Your task to perform on an android device: see creations saved in the google photos Image 0: 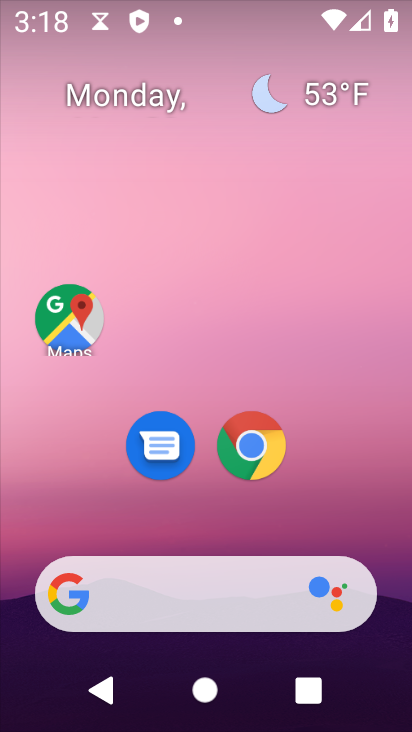
Step 0: drag from (184, 534) to (242, 4)
Your task to perform on an android device: see creations saved in the google photos Image 1: 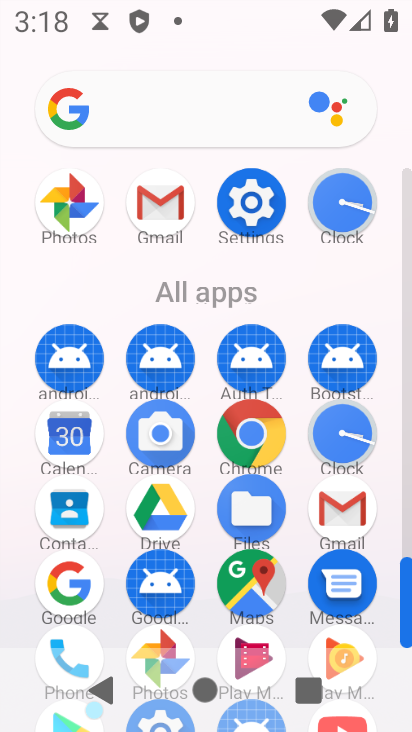
Step 1: drag from (207, 613) to (213, 396)
Your task to perform on an android device: see creations saved in the google photos Image 2: 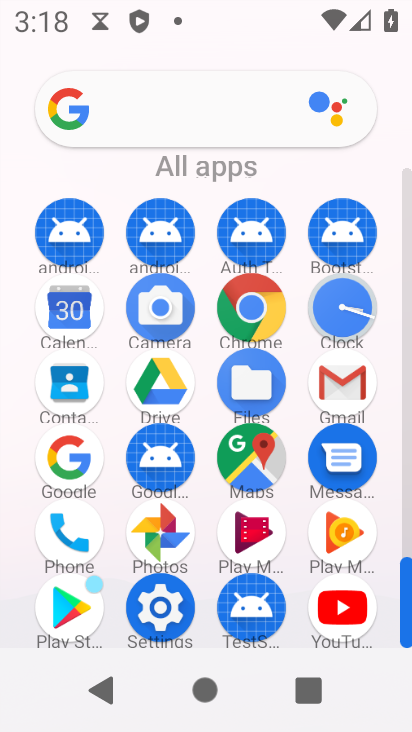
Step 2: click (168, 539)
Your task to perform on an android device: see creations saved in the google photos Image 3: 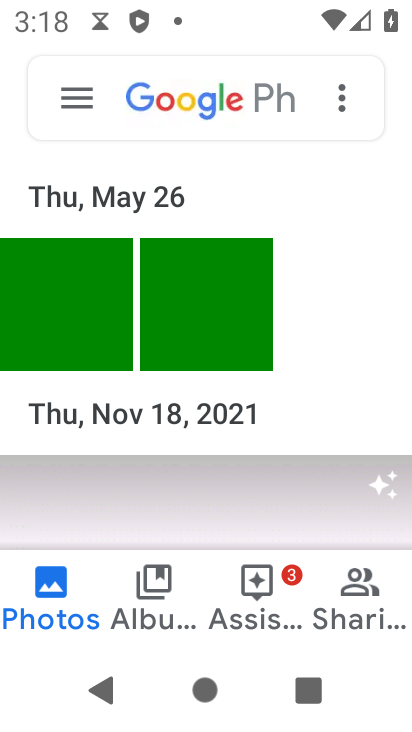
Step 3: drag from (176, 478) to (218, 136)
Your task to perform on an android device: see creations saved in the google photos Image 4: 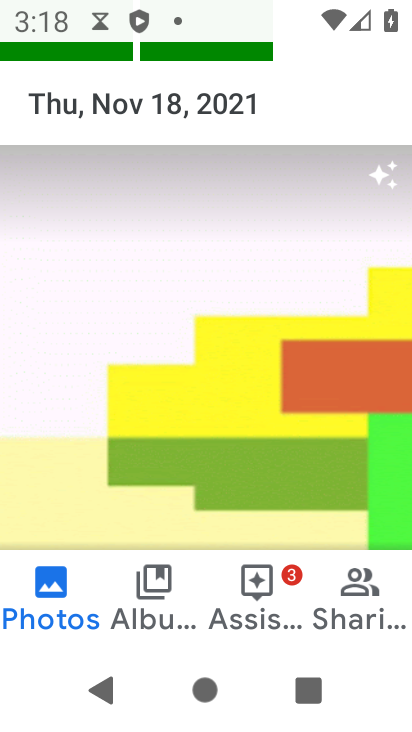
Step 4: drag from (193, 261) to (176, 580)
Your task to perform on an android device: see creations saved in the google photos Image 5: 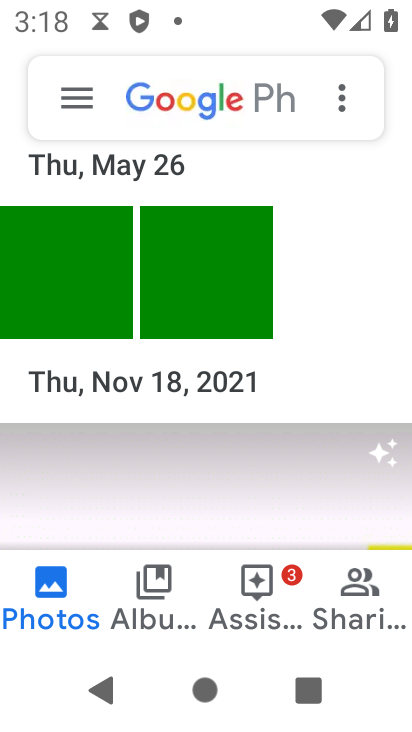
Step 5: click (172, 85)
Your task to perform on an android device: see creations saved in the google photos Image 6: 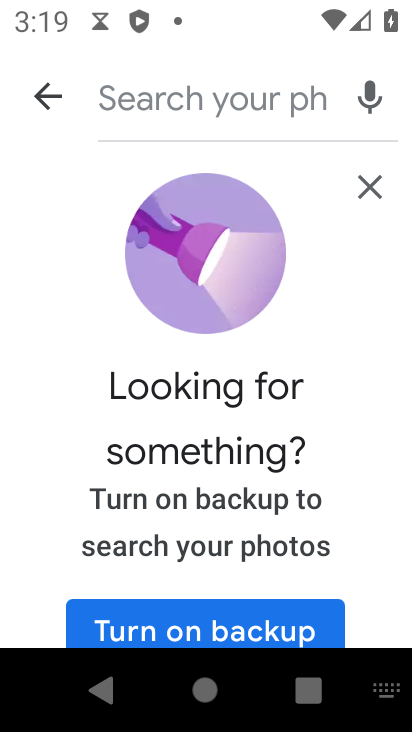
Step 6: type "creations"
Your task to perform on an android device: see creations saved in the google photos Image 7: 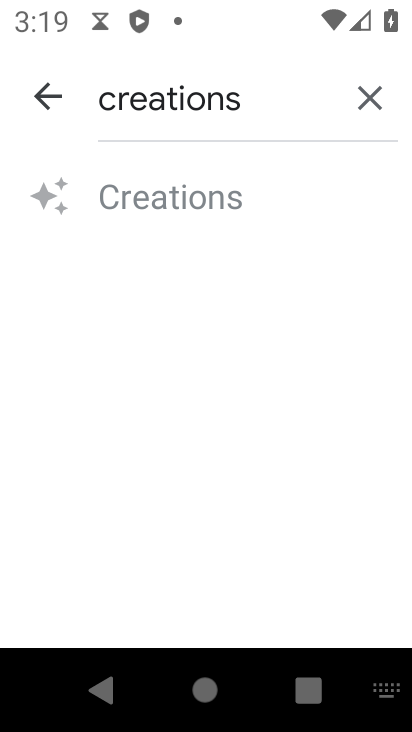
Step 7: click (202, 188)
Your task to perform on an android device: see creations saved in the google photos Image 8: 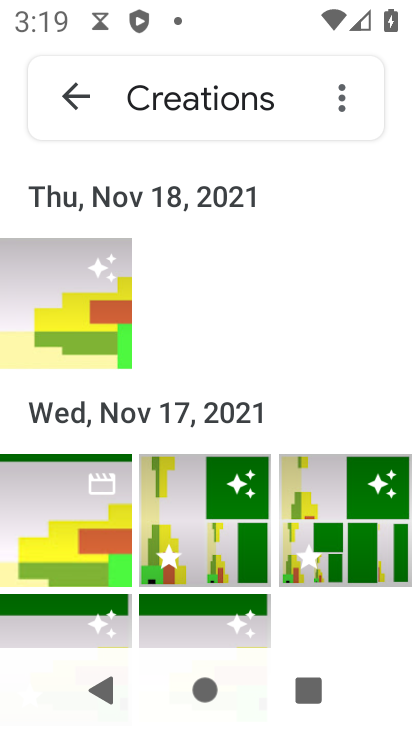
Step 8: task complete